Your task to perform on an android device: Turn off the flashlight Image 0: 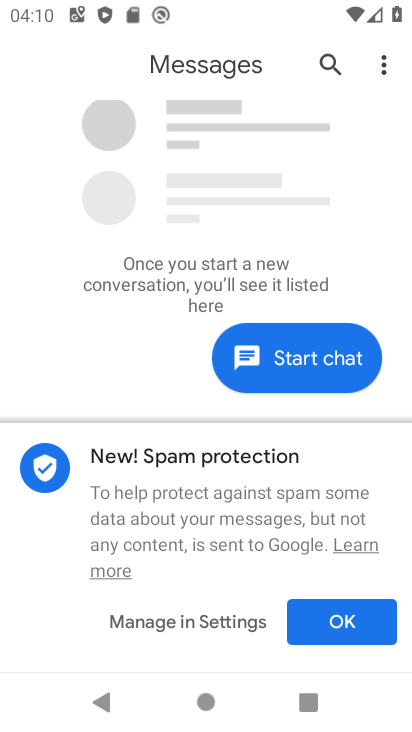
Step 0: press home button
Your task to perform on an android device: Turn off the flashlight Image 1: 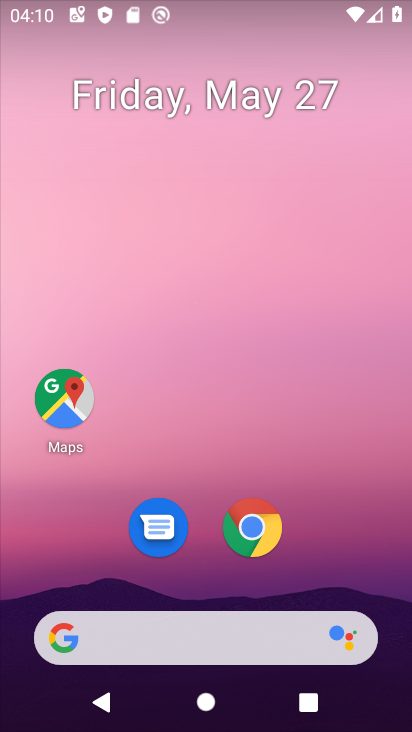
Step 1: task complete